Your task to perform on an android device: toggle location history Image 0: 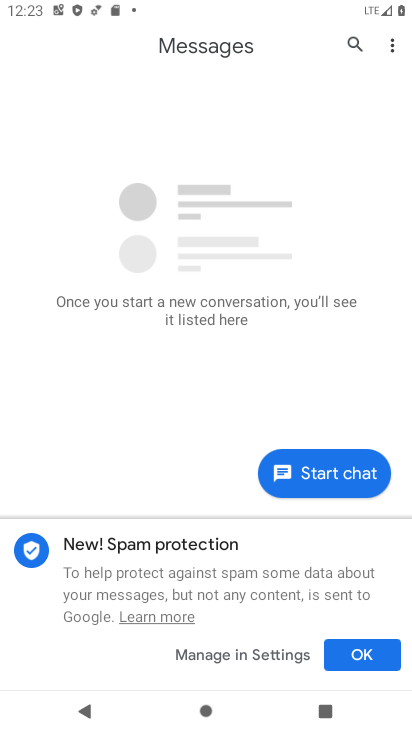
Step 0: press home button
Your task to perform on an android device: toggle location history Image 1: 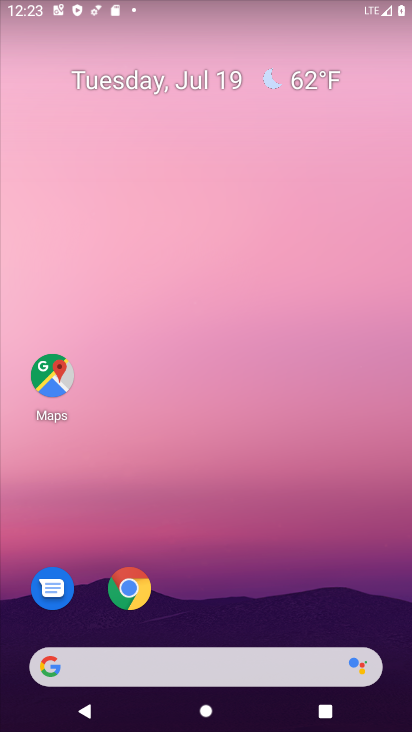
Step 1: drag from (245, 616) to (227, 49)
Your task to perform on an android device: toggle location history Image 2: 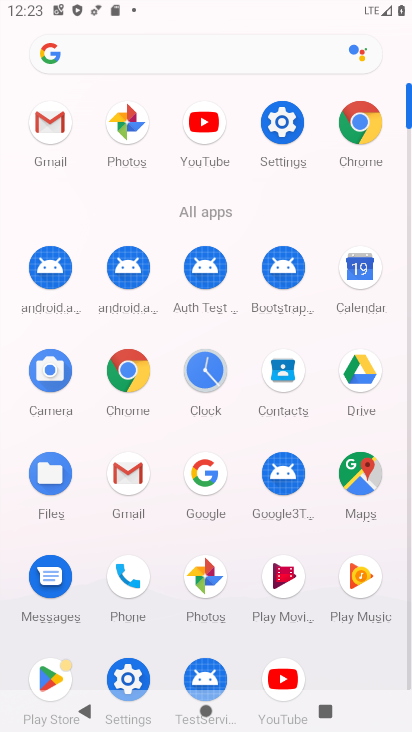
Step 2: click (286, 117)
Your task to perform on an android device: toggle location history Image 3: 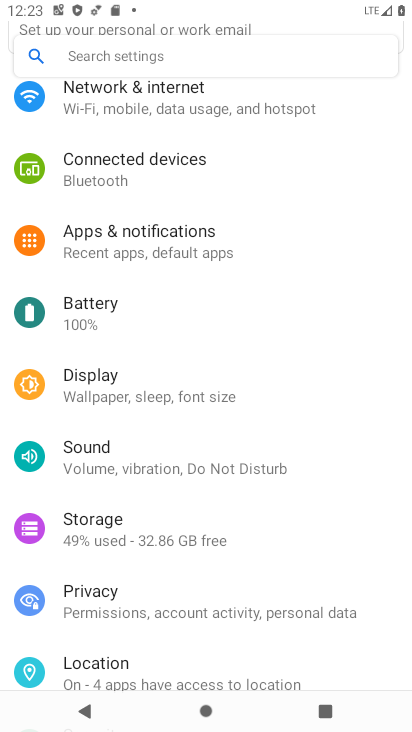
Step 3: click (142, 668)
Your task to perform on an android device: toggle location history Image 4: 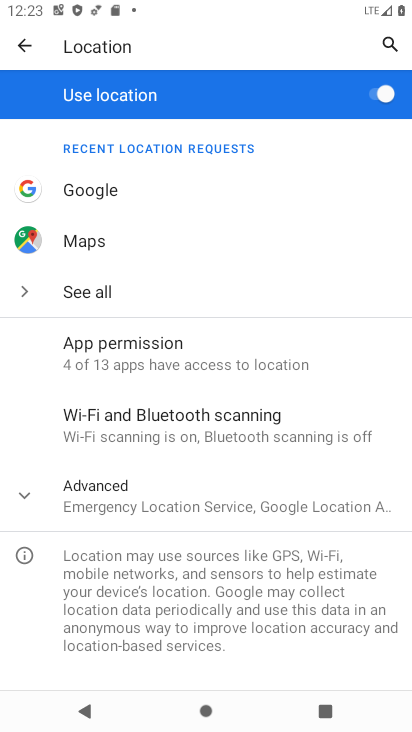
Step 4: click (121, 484)
Your task to perform on an android device: toggle location history Image 5: 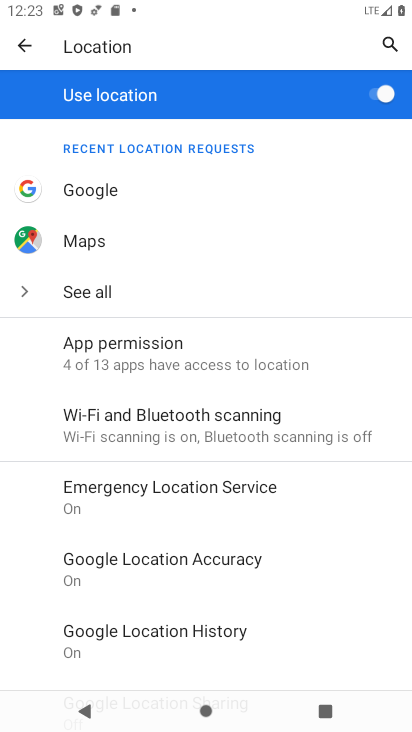
Step 5: click (195, 639)
Your task to perform on an android device: toggle location history Image 6: 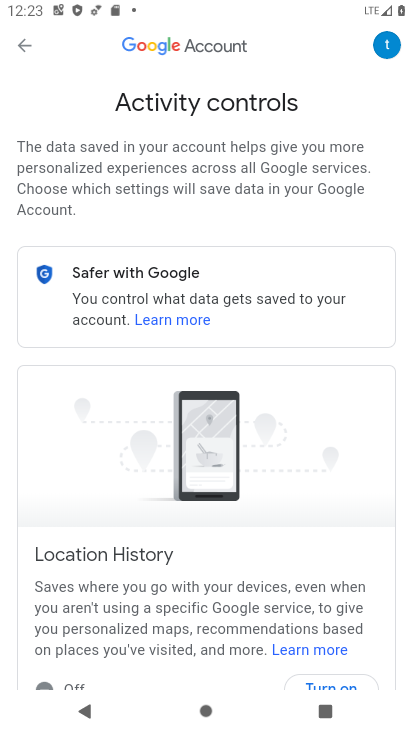
Step 6: drag from (346, 583) to (299, 257)
Your task to perform on an android device: toggle location history Image 7: 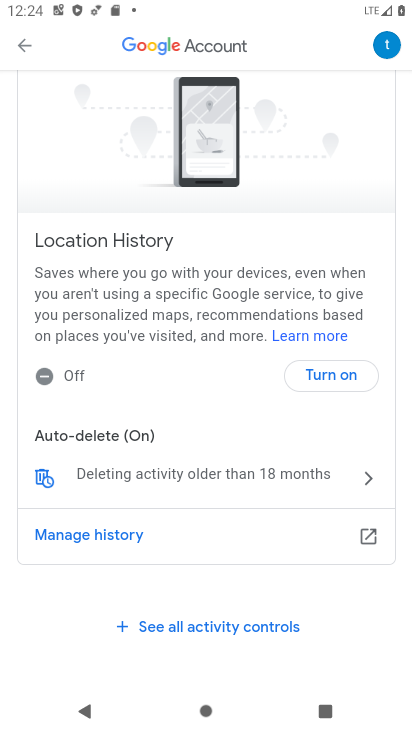
Step 7: click (339, 365)
Your task to perform on an android device: toggle location history Image 8: 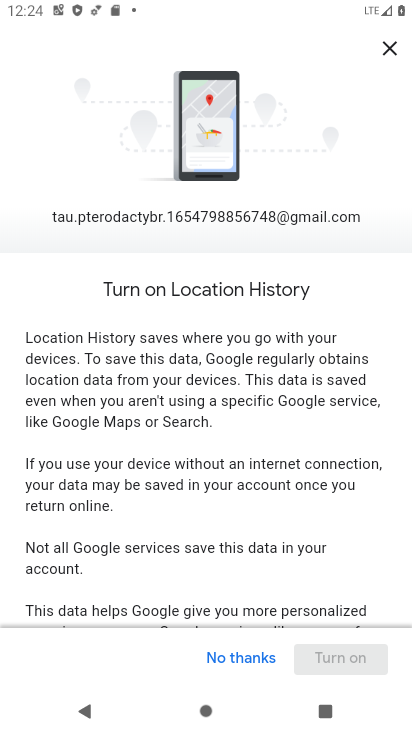
Step 8: drag from (336, 599) to (299, 234)
Your task to perform on an android device: toggle location history Image 9: 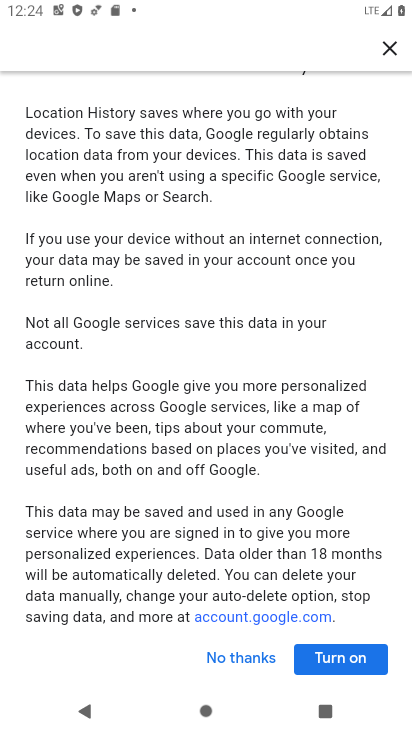
Step 9: click (343, 669)
Your task to perform on an android device: toggle location history Image 10: 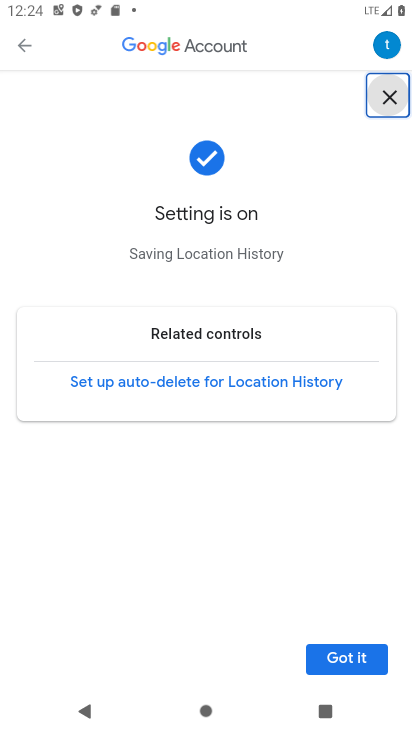
Step 10: task complete